Your task to perform on an android device: Clear all items from cart on newegg.com. Add "jbl flip 4" to the cart on newegg.com Image 0: 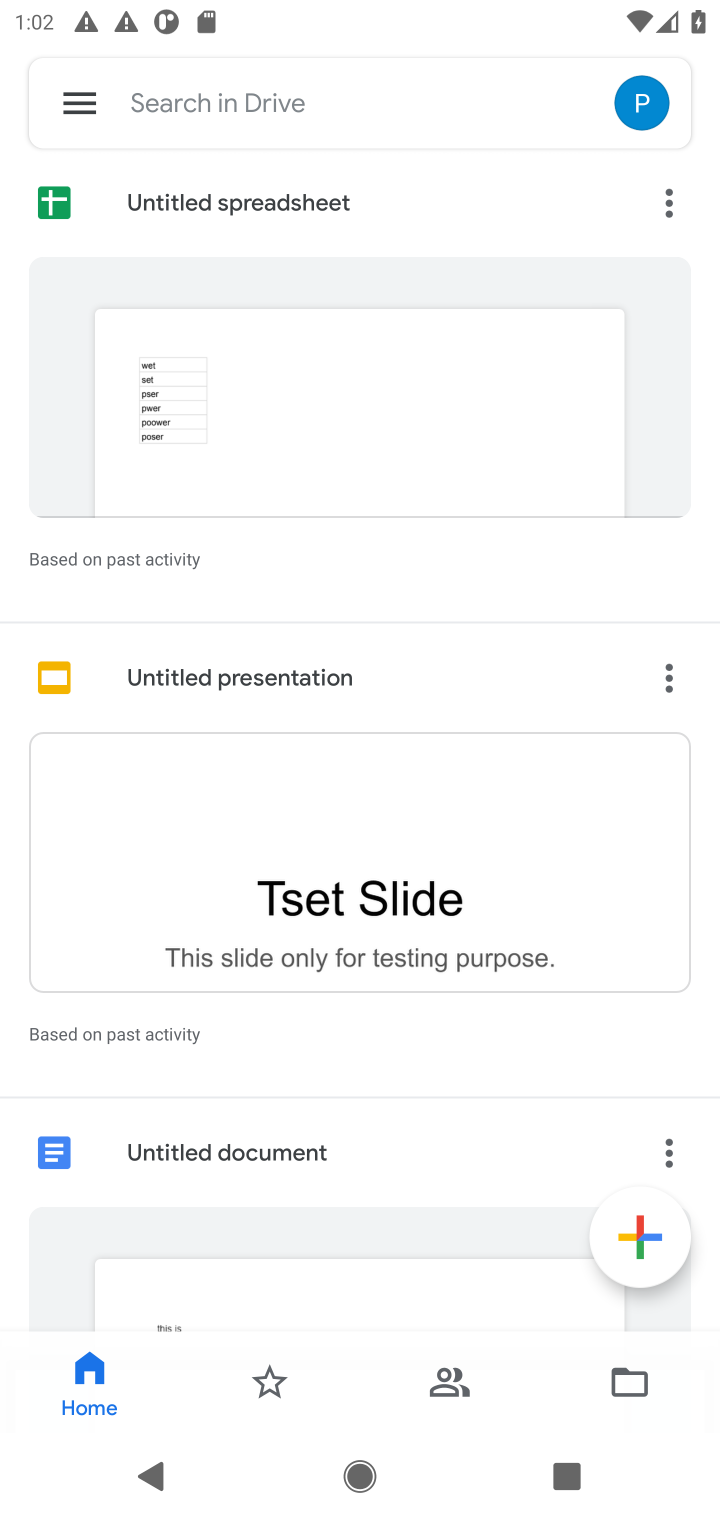
Step 0: task complete